Your task to perform on an android device: turn vacation reply on in the gmail app Image 0: 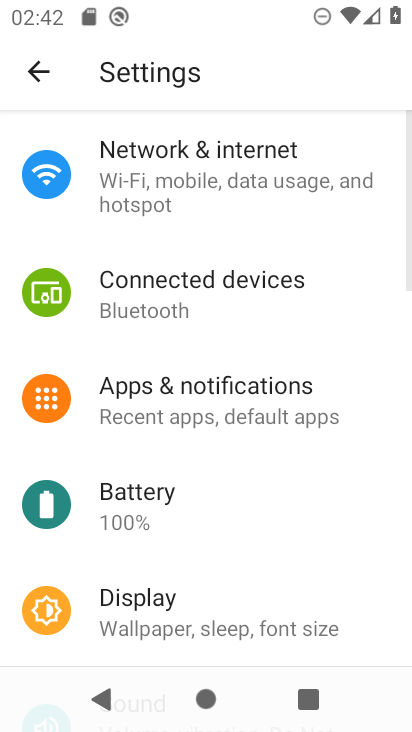
Step 0: press home button
Your task to perform on an android device: turn vacation reply on in the gmail app Image 1: 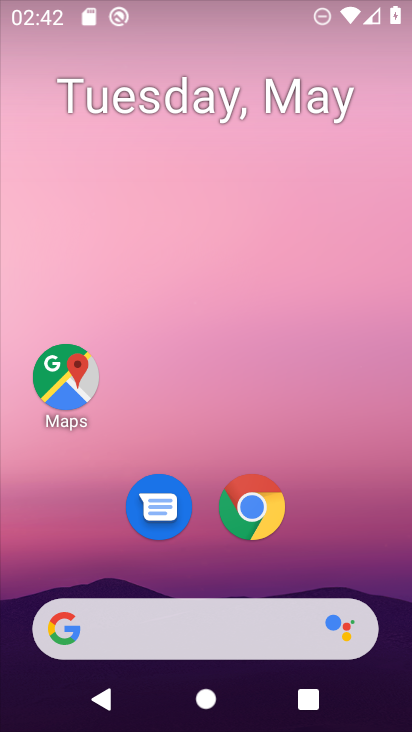
Step 1: drag from (236, 572) to (248, 229)
Your task to perform on an android device: turn vacation reply on in the gmail app Image 2: 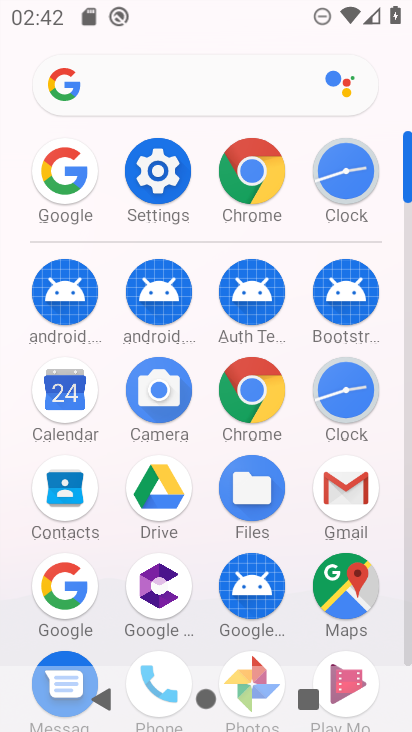
Step 2: click (341, 491)
Your task to perform on an android device: turn vacation reply on in the gmail app Image 3: 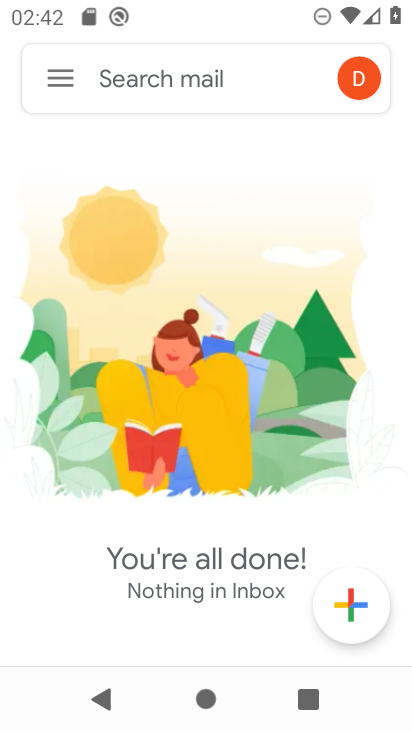
Step 3: click (68, 75)
Your task to perform on an android device: turn vacation reply on in the gmail app Image 4: 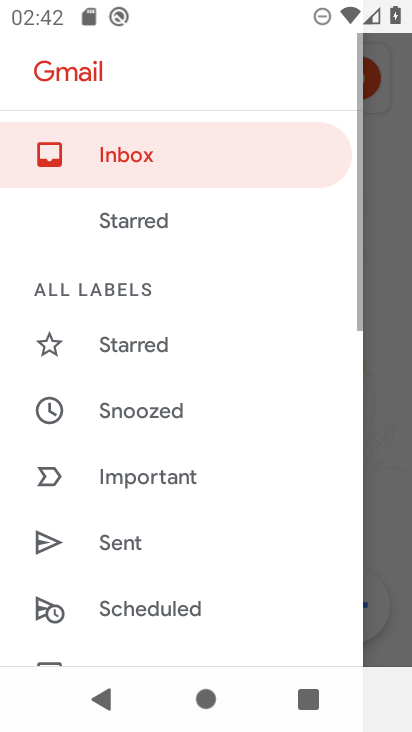
Step 4: drag from (209, 560) to (182, 176)
Your task to perform on an android device: turn vacation reply on in the gmail app Image 5: 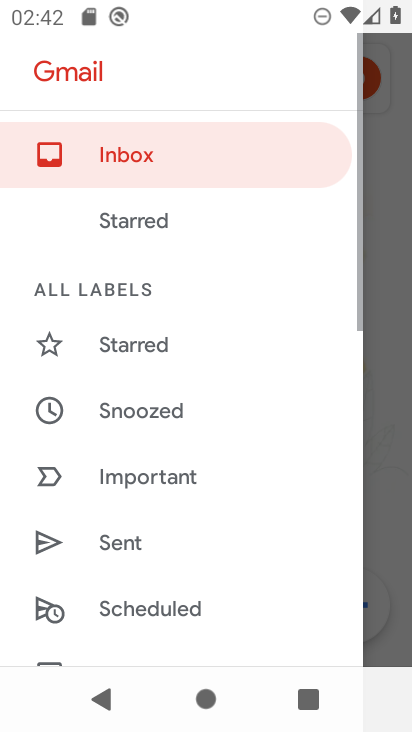
Step 5: drag from (171, 540) to (194, 206)
Your task to perform on an android device: turn vacation reply on in the gmail app Image 6: 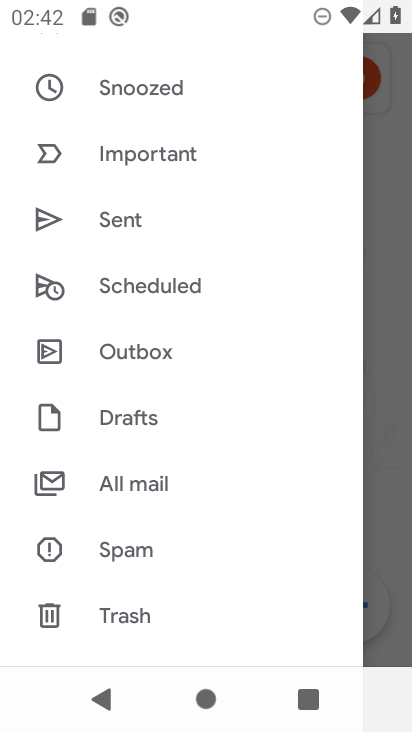
Step 6: drag from (170, 570) to (194, 223)
Your task to perform on an android device: turn vacation reply on in the gmail app Image 7: 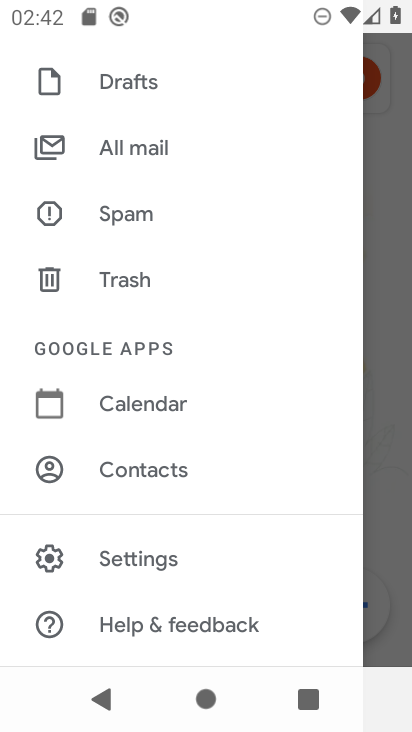
Step 7: drag from (160, 554) to (185, 348)
Your task to perform on an android device: turn vacation reply on in the gmail app Image 8: 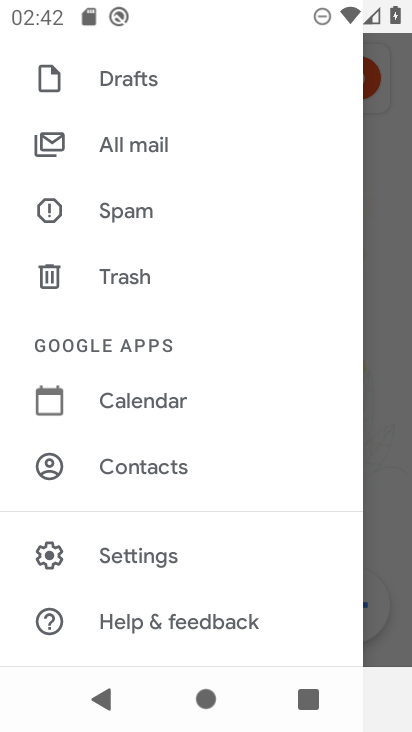
Step 8: click (178, 553)
Your task to perform on an android device: turn vacation reply on in the gmail app Image 9: 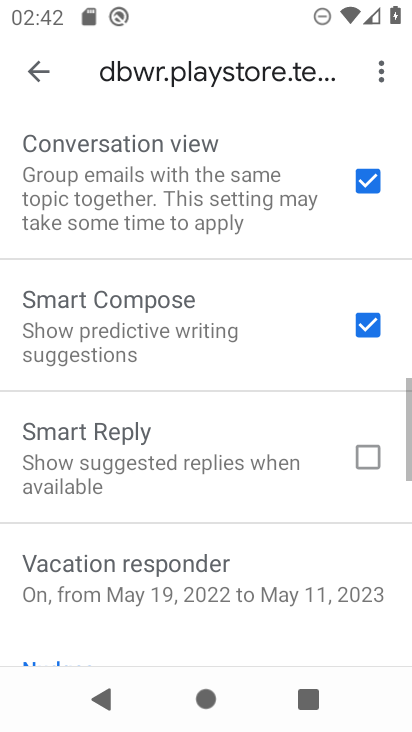
Step 9: drag from (205, 583) to (232, 389)
Your task to perform on an android device: turn vacation reply on in the gmail app Image 10: 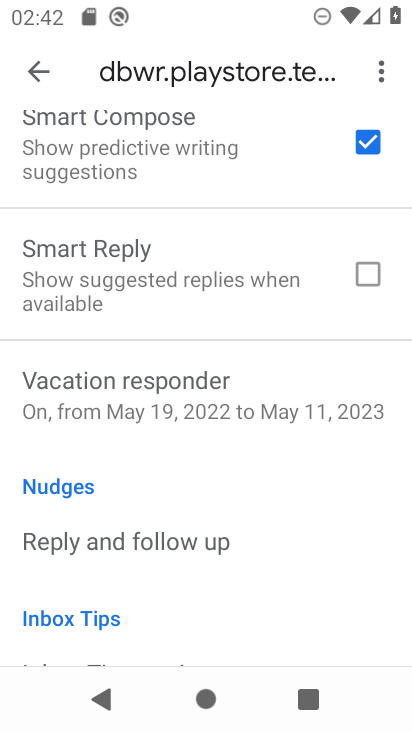
Step 10: click (232, 389)
Your task to perform on an android device: turn vacation reply on in the gmail app Image 11: 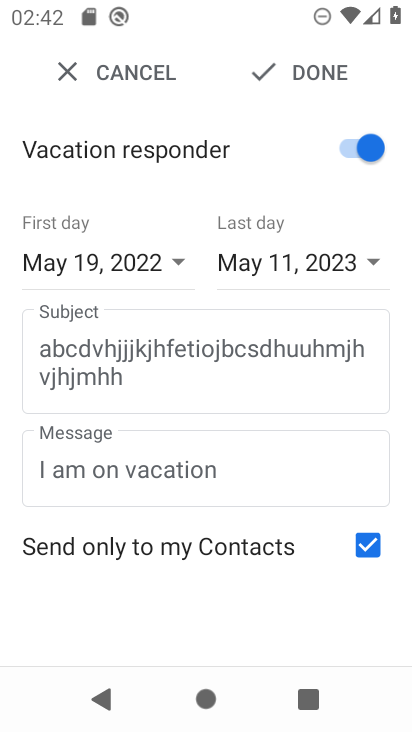
Step 11: task complete